Your task to perform on an android device: Find coffee shops on Maps Image 0: 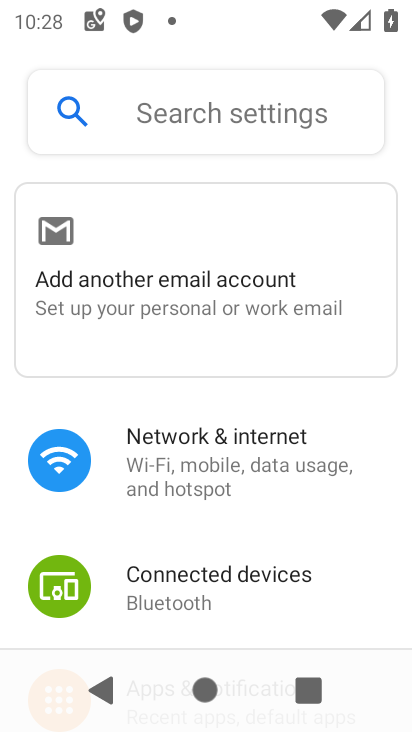
Step 0: press home button
Your task to perform on an android device: Find coffee shops on Maps Image 1: 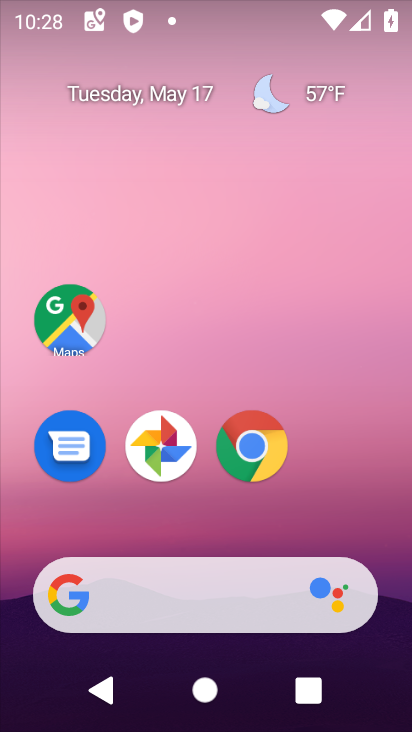
Step 1: click (55, 328)
Your task to perform on an android device: Find coffee shops on Maps Image 2: 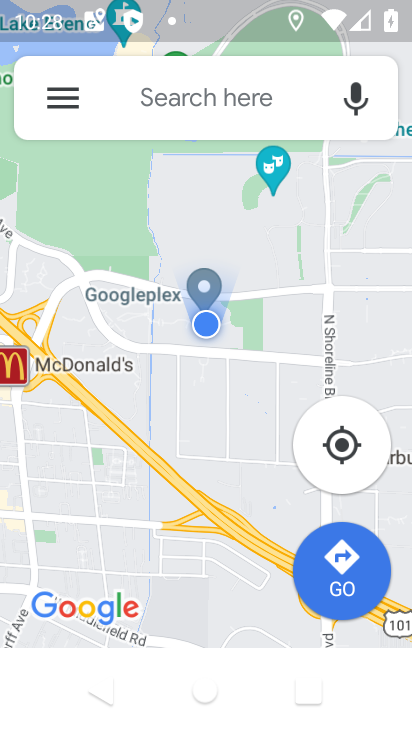
Step 2: click (239, 89)
Your task to perform on an android device: Find coffee shops on Maps Image 3: 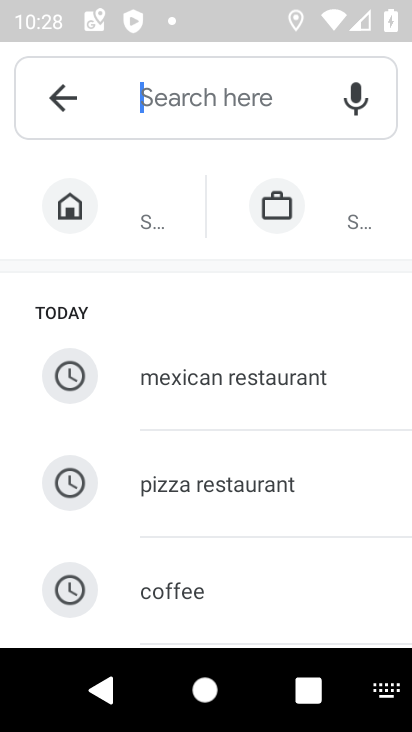
Step 3: type "coffee shops"
Your task to perform on an android device: Find coffee shops on Maps Image 4: 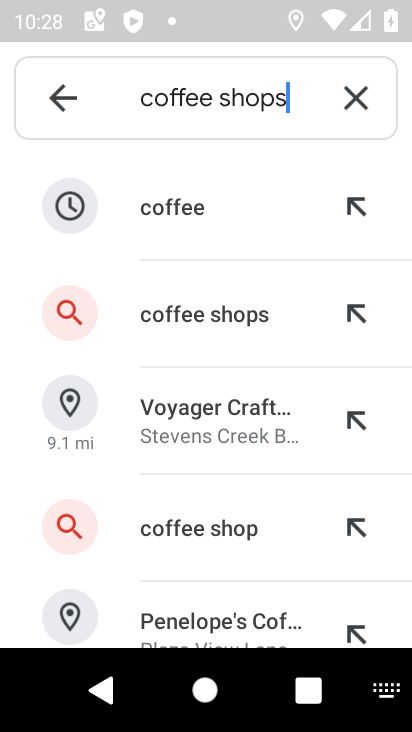
Step 4: click (150, 312)
Your task to perform on an android device: Find coffee shops on Maps Image 5: 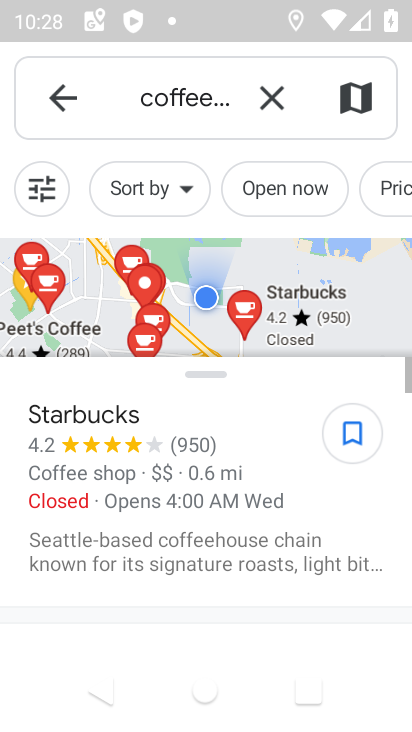
Step 5: task complete